Your task to perform on an android device: Open Google Maps and go to "Timeline" Image 0: 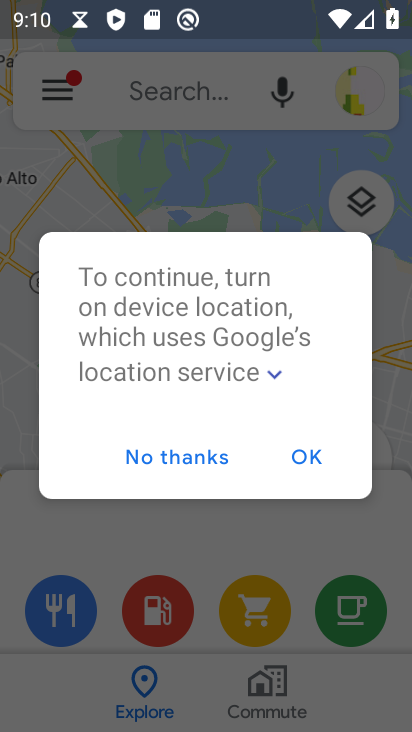
Step 0: press home button
Your task to perform on an android device: Open Google Maps and go to "Timeline" Image 1: 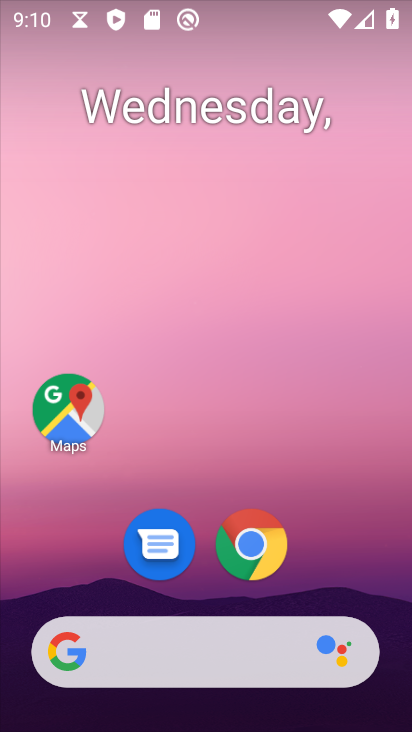
Step 1: drag from (124, 647) to (234, 303)
Your task to perform on an android device: Open Google Maps and go to "Timeline" Image 2: 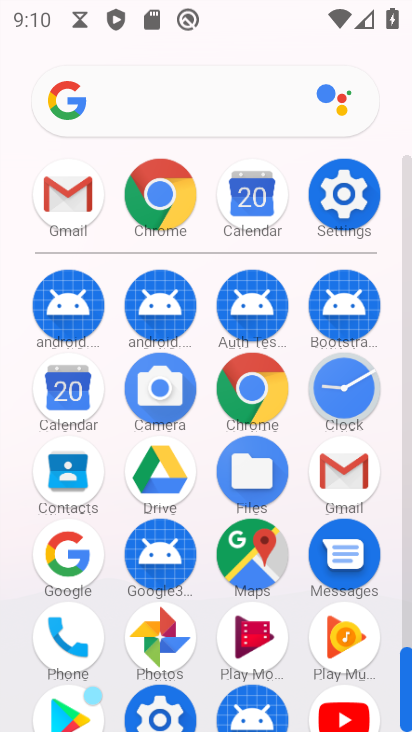
Step 2: click (252, 566)
Your task to perform on an android device: Open Google Maps and go to "Timeline" Image 3: 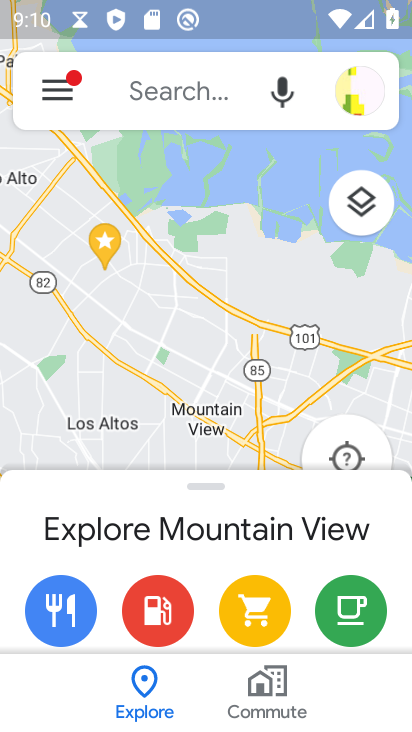
Step 3: click (62, 85)
Your task to perform on an android device: Open Google Maps and go to "Timeline" Image 4: 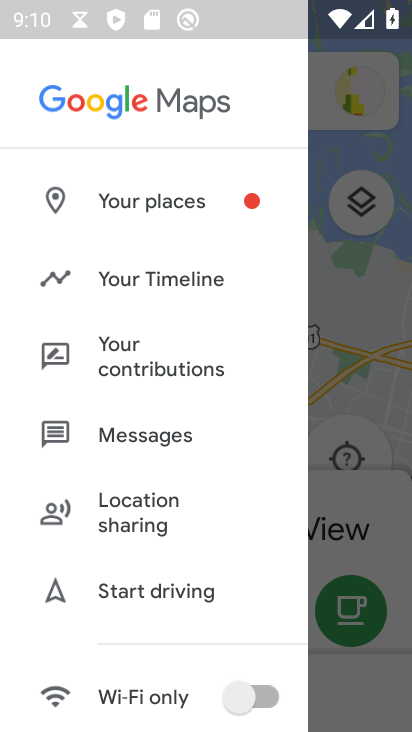
Step 4: click (123, 279)
Your task to perform on an android device: Open Google Maps and go to "Timeline" Image 5: 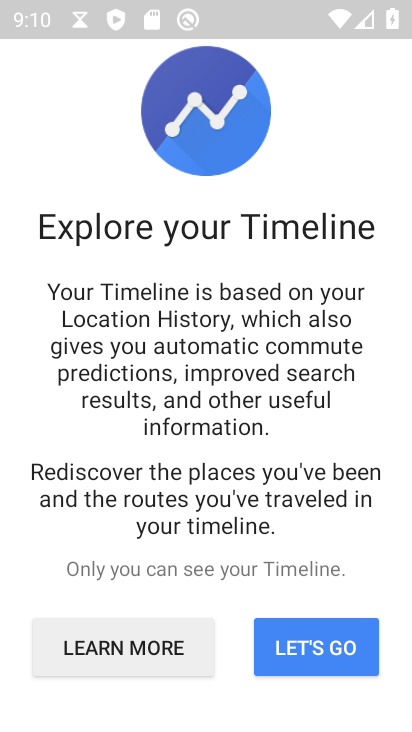
Step 5: drag from (175, 522) to (262, 249)
Your task to perform on an android device: Open Google Maps and go to "Timeline" Image 6: 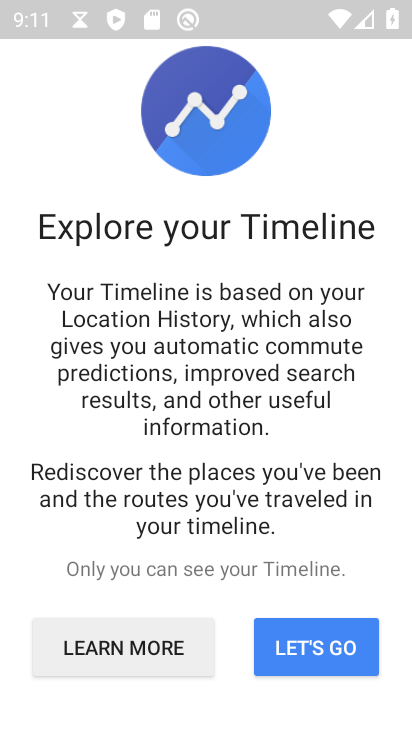
Step 6: click (300, 646)
Your task to perform on an android device: Open Google Maps and go to "Timeline" Image 7: 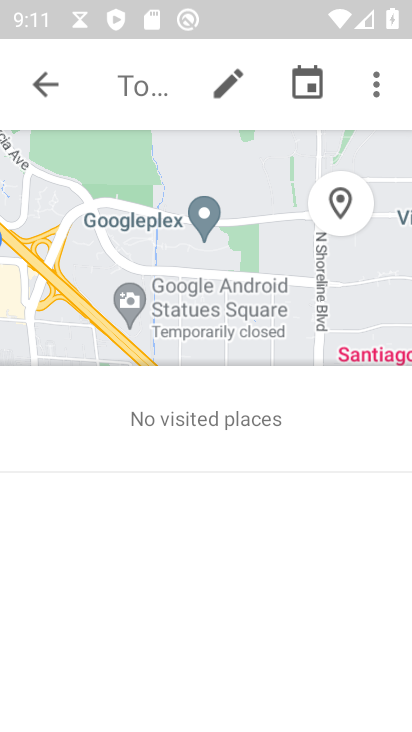
Step 7: task complete